Your task to perform on an android device: What's on my calendar tomorrow? Image 0: 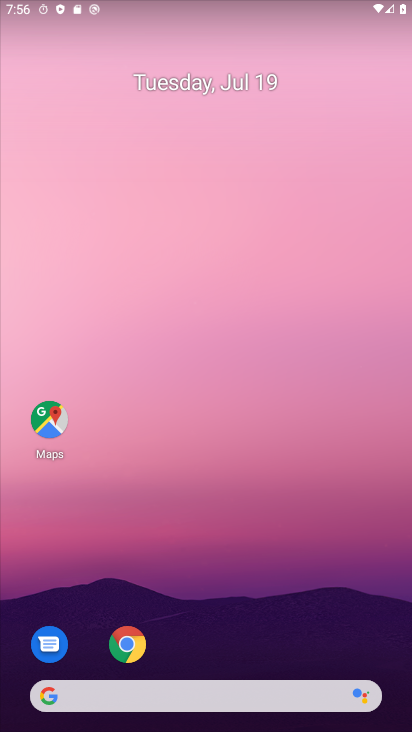
Step 0: drag from (23, 710) to (235, 150)
Your task to perform on an android device: What's on my calendar tomorrow? Image 1: 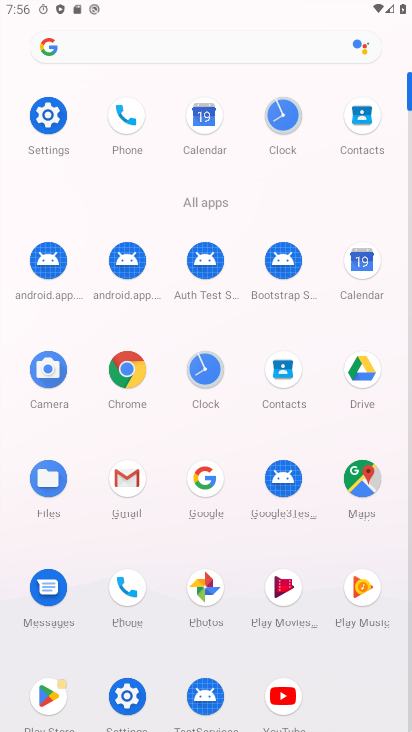
Step 1: click (356, 262)
Your task to perform on an android device: What's on my calendar tomorrow? Image 2: 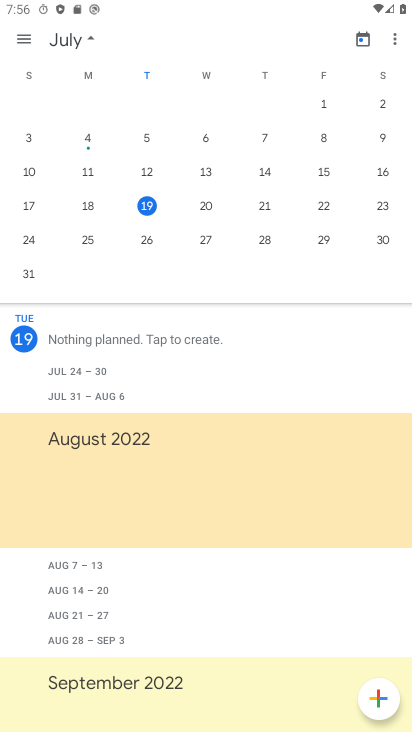
Step 2: task complete